Your task to perform on an android device: Open Google Maps and go to "Timeline" Image 0: 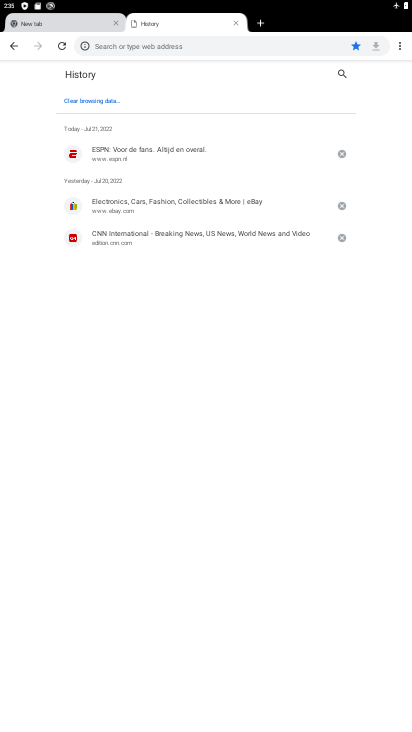
Step 0: press home button
Your task to perform on an android device: Open Google Maps and go to "Timeline" Image 1: 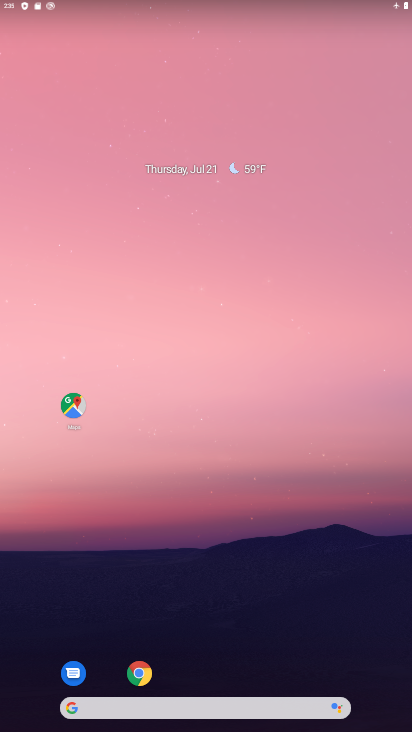
Step 1: click (69, 403)
Your task to perform on an android device: Open Google Maps and go to "Timeline" Image 2: 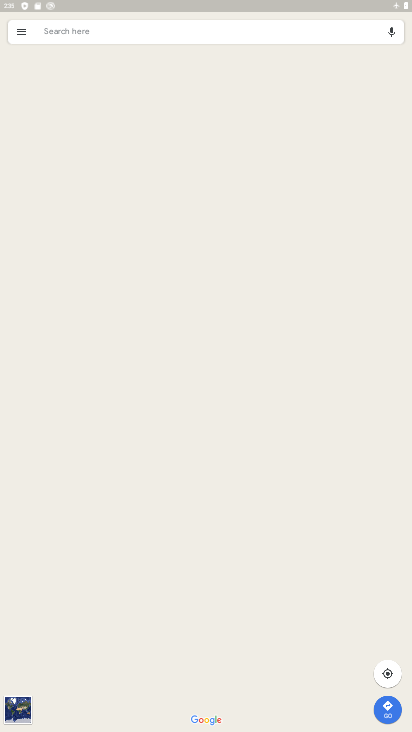
Step 2: click (21, 30)
Your task to perform on an android device: Open Google Maps and go to "Timeline" Image 3: 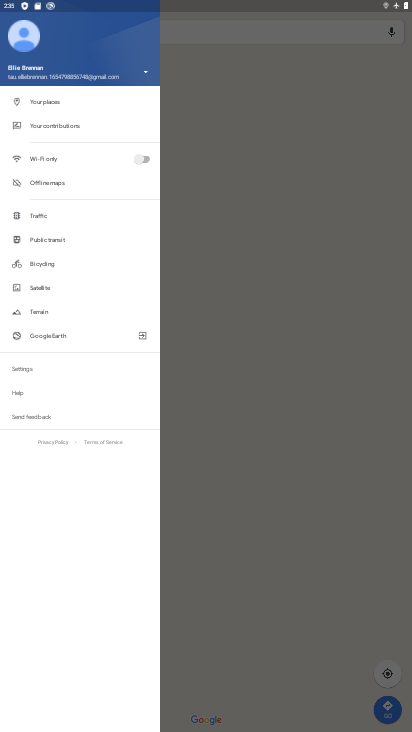
Step 3: task complete